Your task to perform on an android device: change notification settings in the gmail app Image 0: 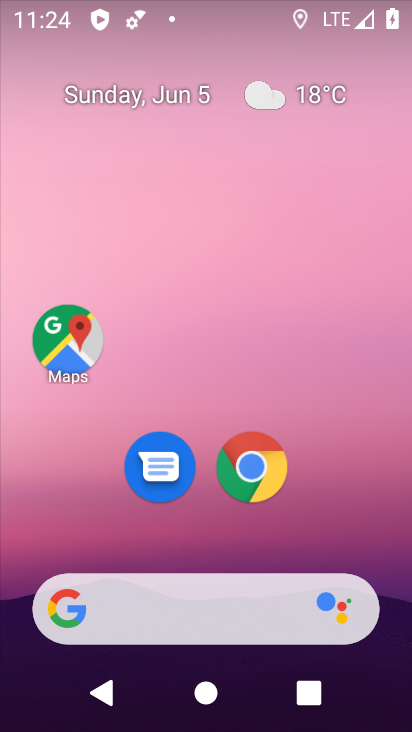
Step 0: click (228, 604)
Your task to perform on an android device: change notification settings in the gmail app Image 1: 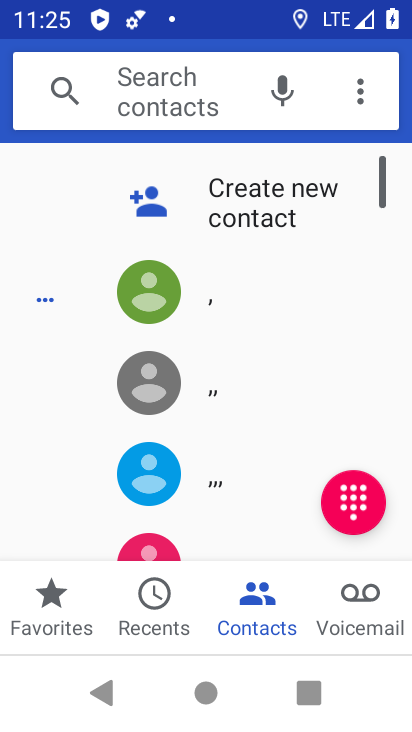
Step 1: press home button
Your task to perform on an android device: change notification settings in the gmail app Image 2: 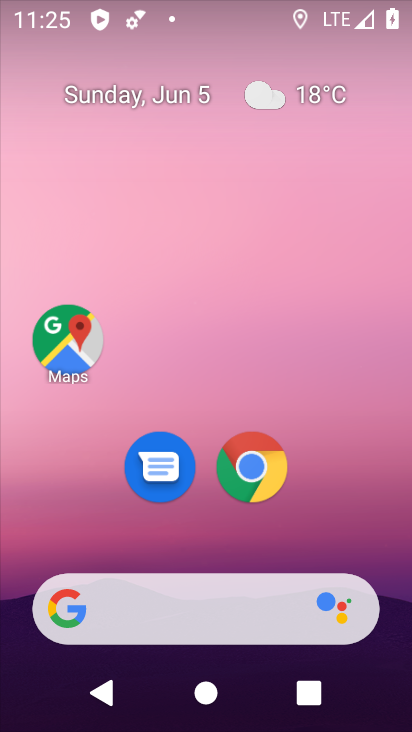
Step 2: drag from (229, 567) to (215, 84)
Your task to perform on an android device: change notification settings in the gmail app Image 3: 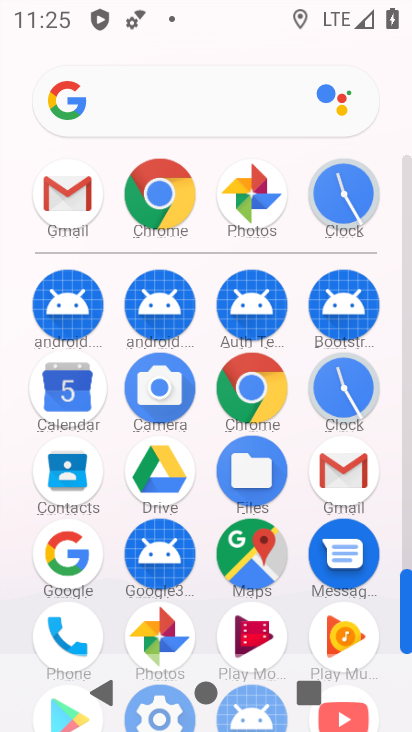
Step 3: click (340, 455)
Your task to perform on an android device: change notification settings in the gmail app Image 4: 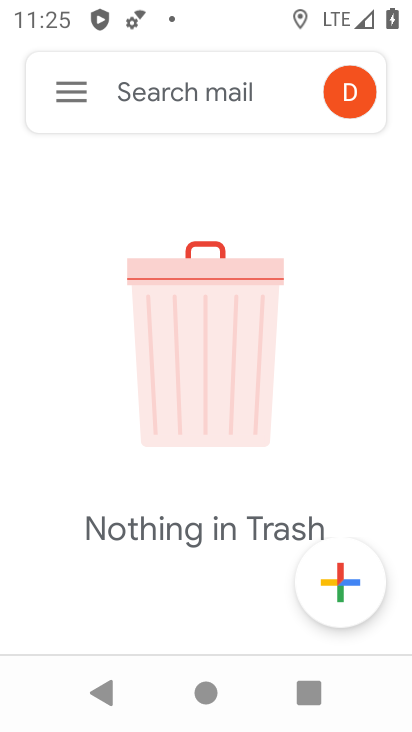
Step 4: click (75, 91)
Your task to perform on an android device: change notification settings in the gmail app Image 5: 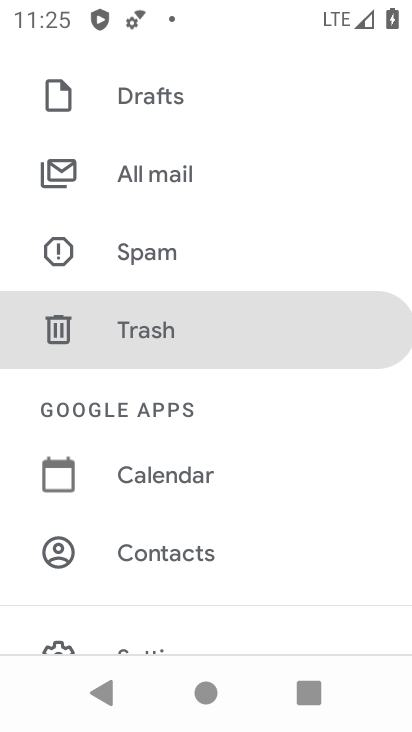
Step 5: drag from (175, 555) to (51, 39)
Your task to perform on an android device: change notification settings in the gmail app Image 6: 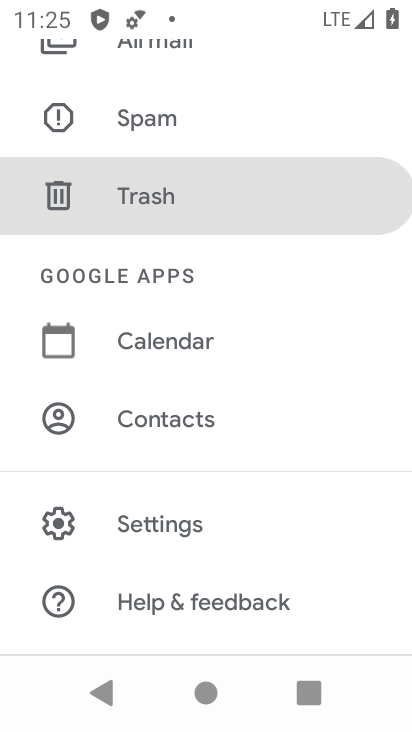
Step 6: click (127, 543)
Your task to perform on an android device: change notification settings in the gmail app Image 7: 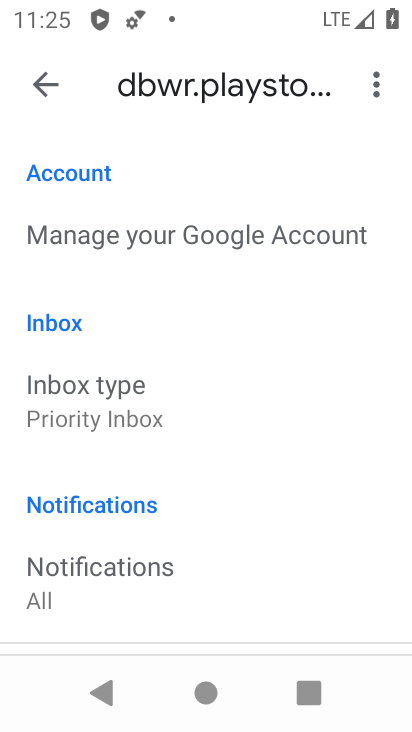
Step 7: click (43, 96)
Your task to perform on an android device: change notification settings in the gmail app Image 8: 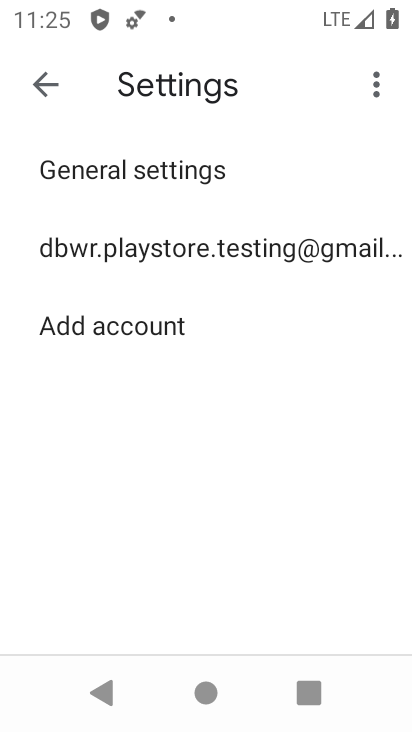
Step 8: click (120, 178)
Your task to perform on an android device: change notification settings in the gmail app Image 9: 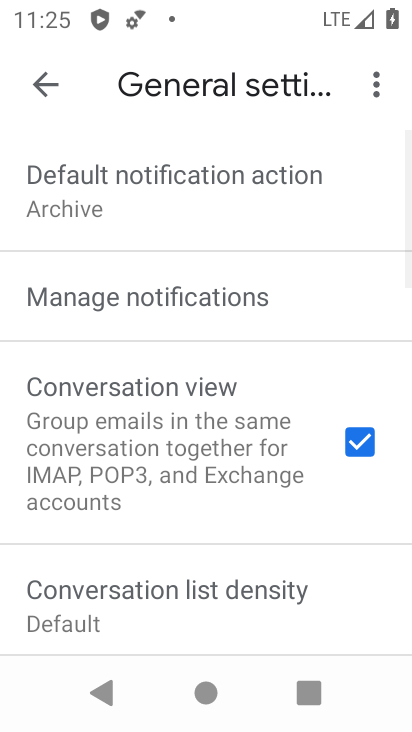
Step 9: click (193, 307)
Your task to perform on an android device: change notification settings in the gmail app Image 10: 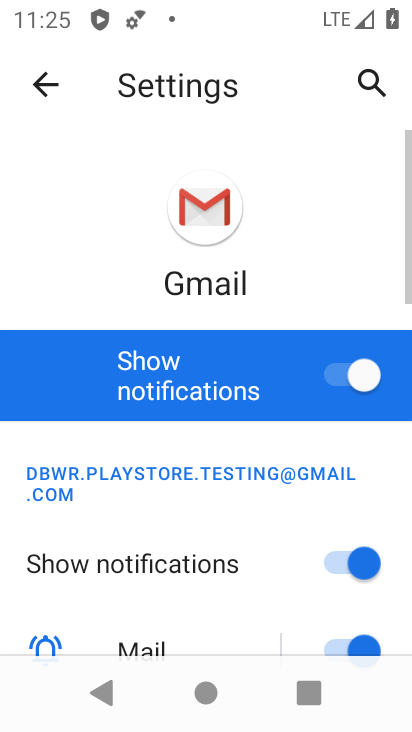
Step 10: click (349, 382)
Your task to perform on an android device: change notification settings in the gmail app Image 11: 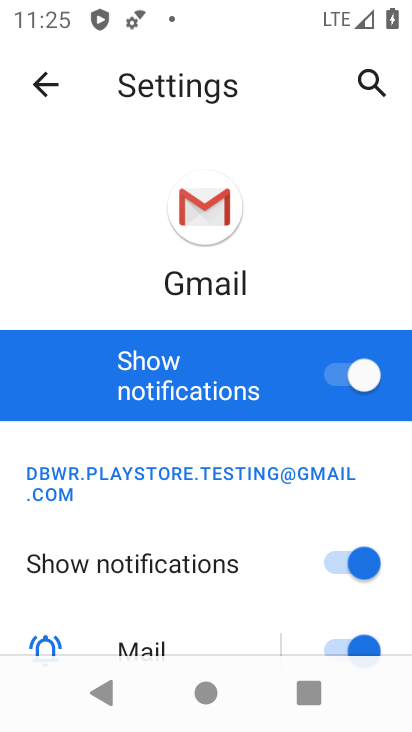
Step 11: task complete